Your task to perform on an android device: open wifi settings Image 0: 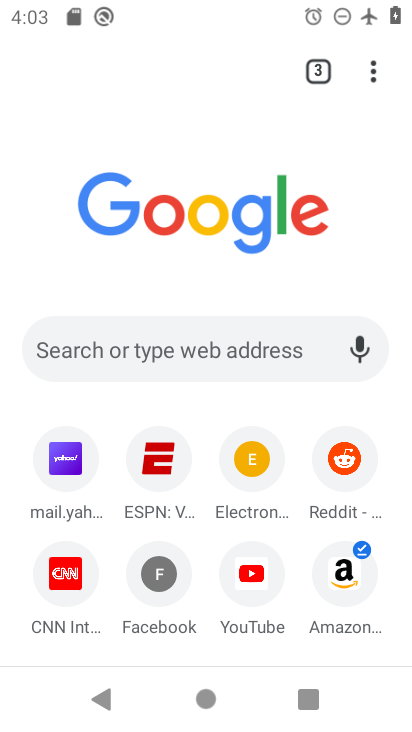
Step 0: press home button
Your task to perform on an android device: open wifi settings Image 1: 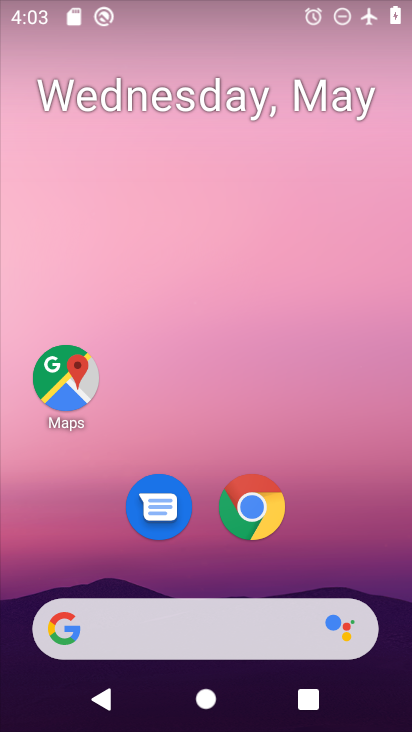
Step 1: drag from (220, 551) to (254, 7)
Your task to perform on an android device: open wifi settings Image 2: 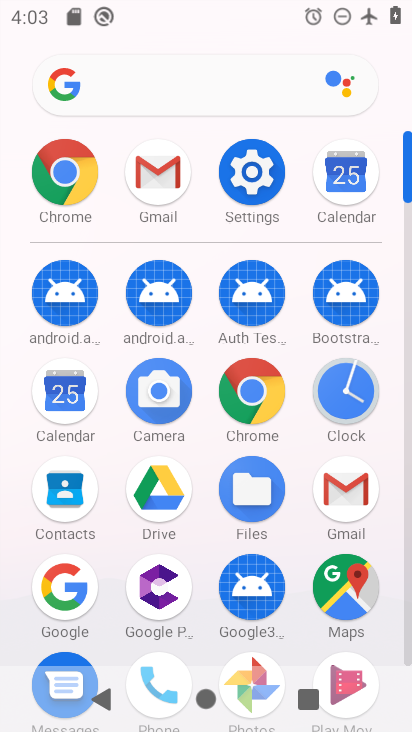
Step 2: click (268, 171)
Your task to perform on an android device: open wifi settings Image 3: 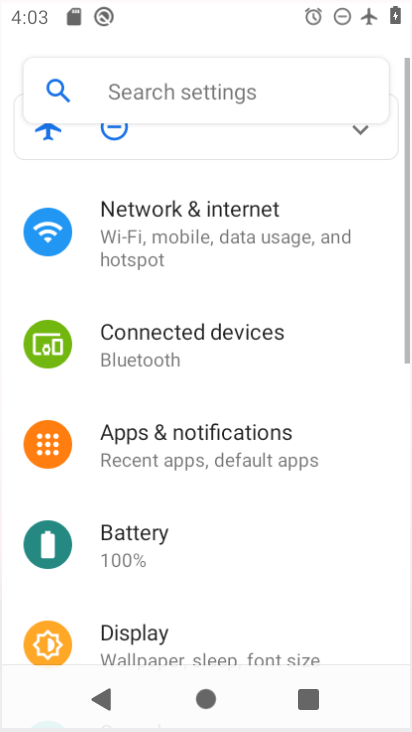
Step 3: click (243, 181)
Your task to perform on an android device: open wifi settings Image 4: 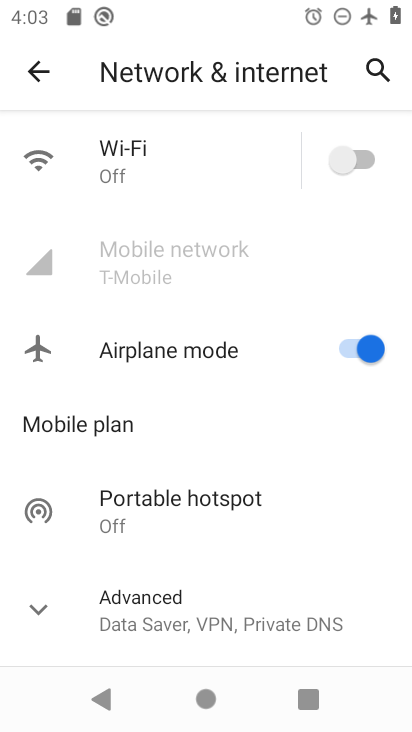
Step 4: click (188, 180)
Your task to perform on an android device: open wifi settings Image 5: 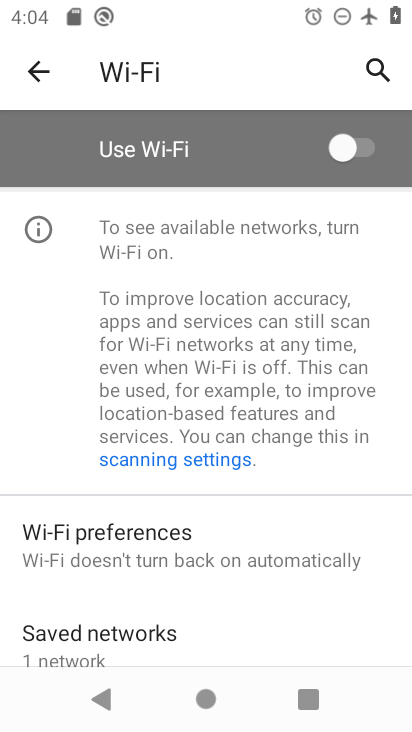
Step 5: task complete